Your task to perform on an android device: Show me popular games on the Play Store Image 0: 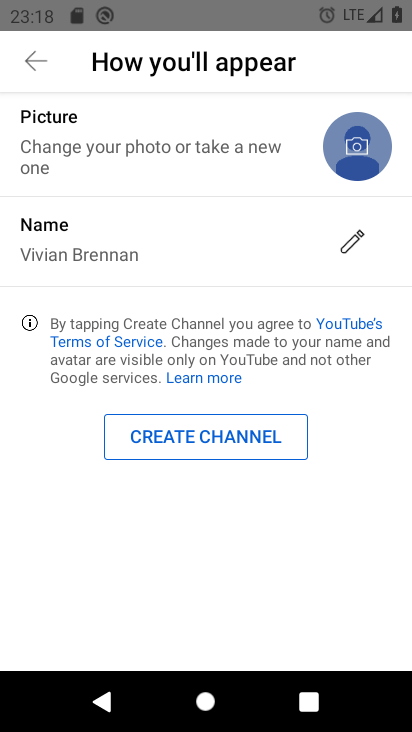
Step 0: press home button
Your task to perform on an android device: Show me popular games on the Play Store Image 1: 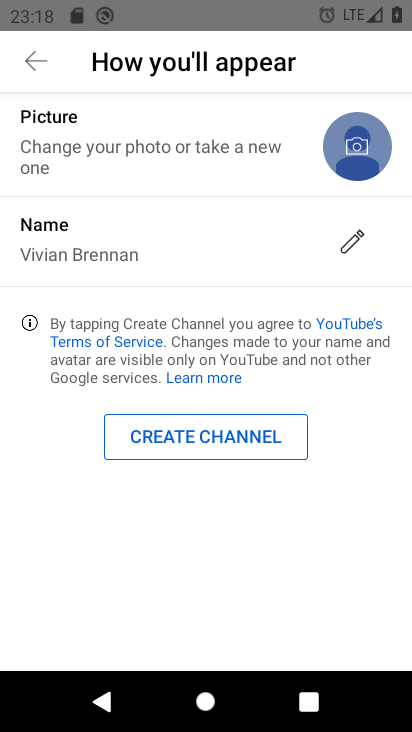
Step 1: press home button
Your task to perform on an android device: Show me popular games on the Play Store Image 2: 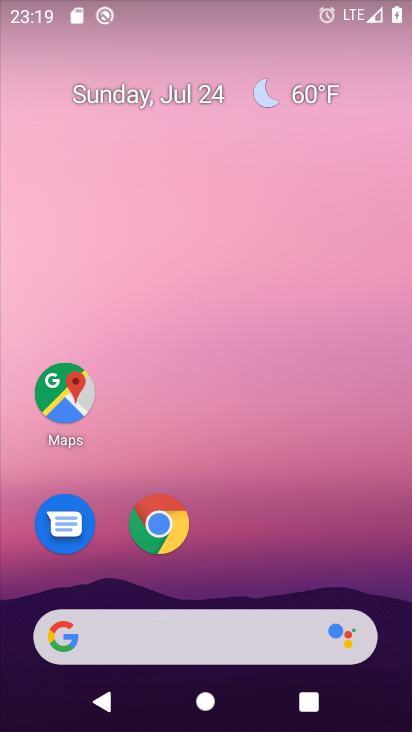
Step 2: drag from (260, 539) to (201, 31)
Your task to perform on an android device: Show me popular games on the Play Store Image 3: 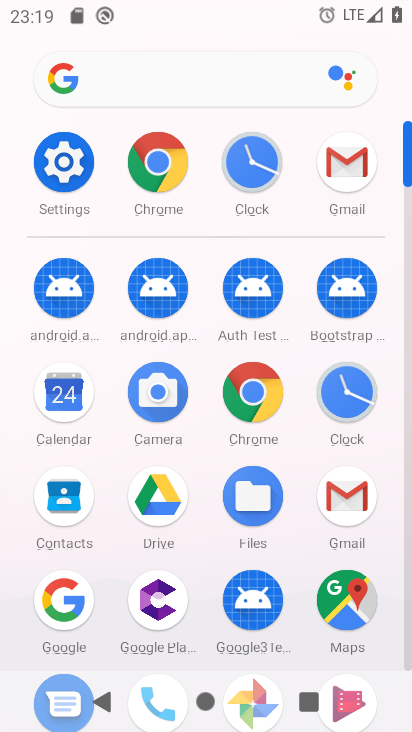
Step 3: drag from (122, 468) to (103, 116)
Your task to perform on an android device: Show me popular games on the Play Store Image 4: 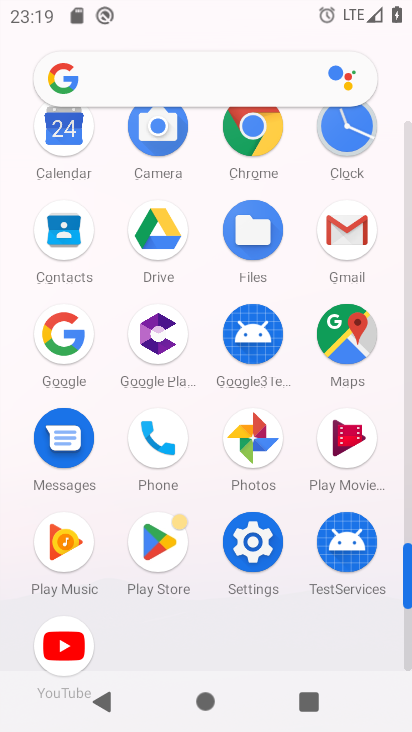
Step 4: click (162, 553)
Your task to perform on an android device: Show me popular games on the Play Store Image 5: 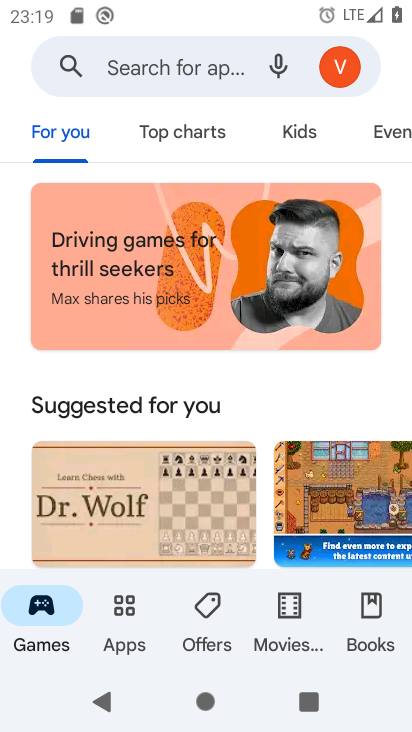
Step 5: drag from (229, 472) to (259, 184)
Your task to perform on an android device: Show me popular games on the Play Store Image 6: 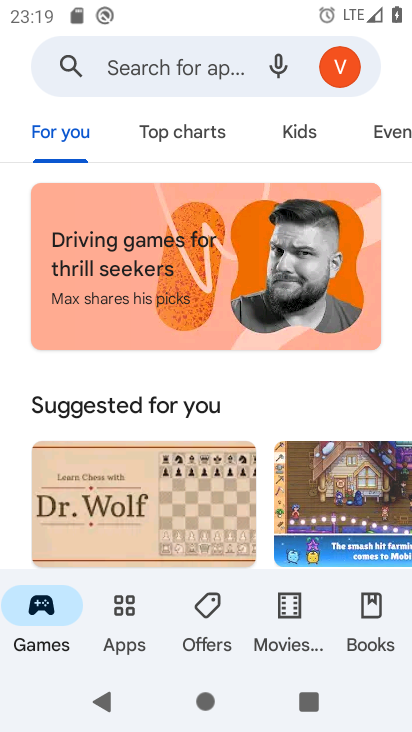
Step 6: drag from (184, 500) to (176, 118)
Your task to perform on an android device: Show me popular games on the Play Store Image 7: 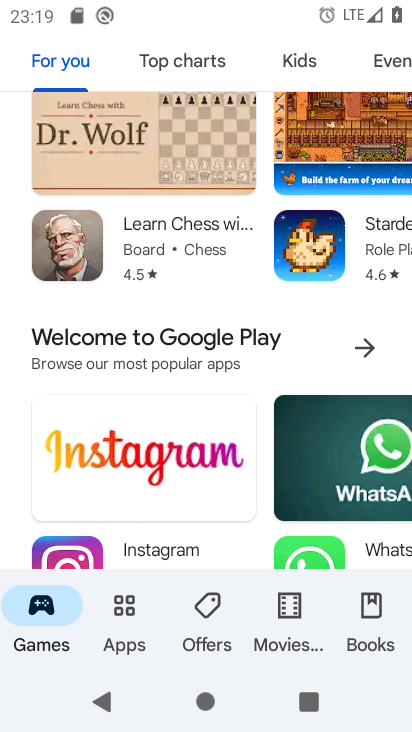
Step 7: drag from (185, 488) to (157, 95)
Your task to perform on an android device: Show me popular games on the Play Store Image 8: 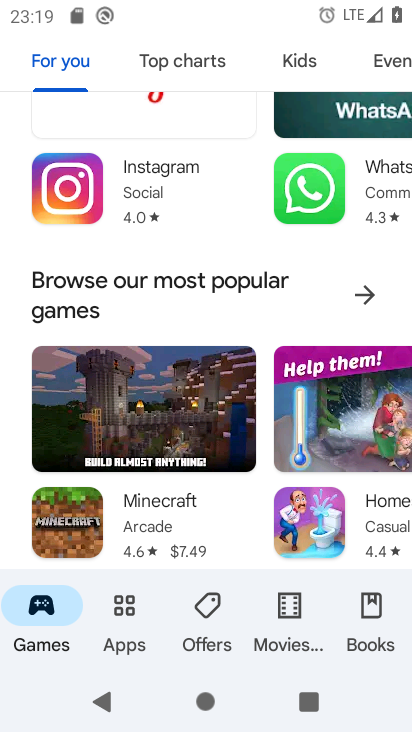
Step 8: click (364, 295)
Your task to perform on an android device: Show me popular games on the Play Store Image 9: 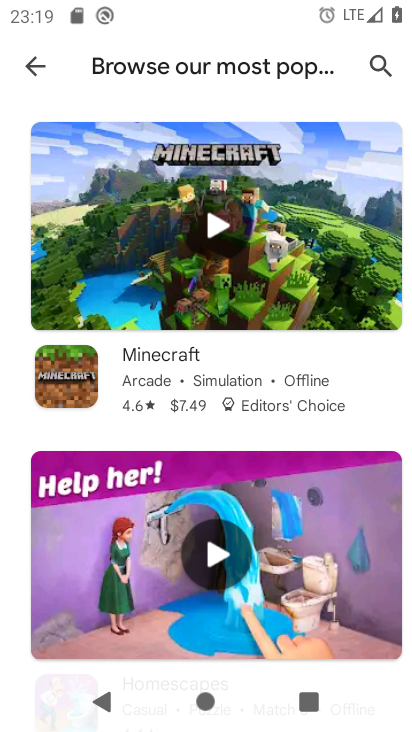
Step 9: task complete